Your task to perform on an android device: all mails in gmail Image 0: 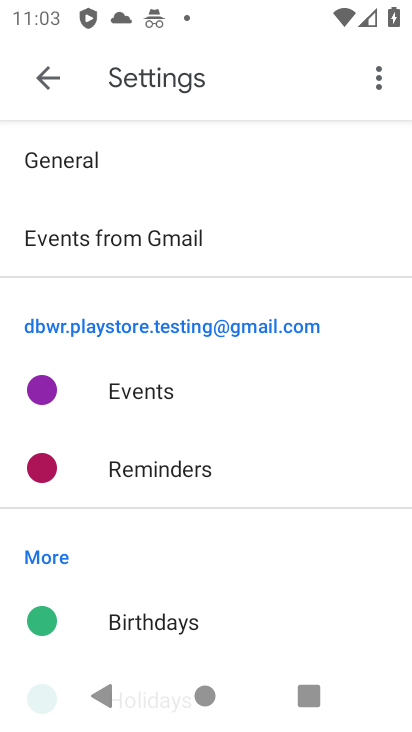
Step 0: press home button
Your task to perform on an android device: all mails in gmail Image 1: 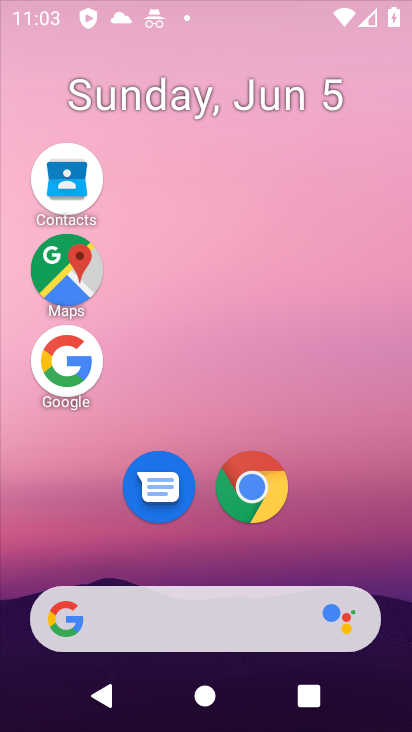
Step 1: drag from (201, 662) to (233, 117)
Your task to perform on an android device: all mails in gmail Image 2: 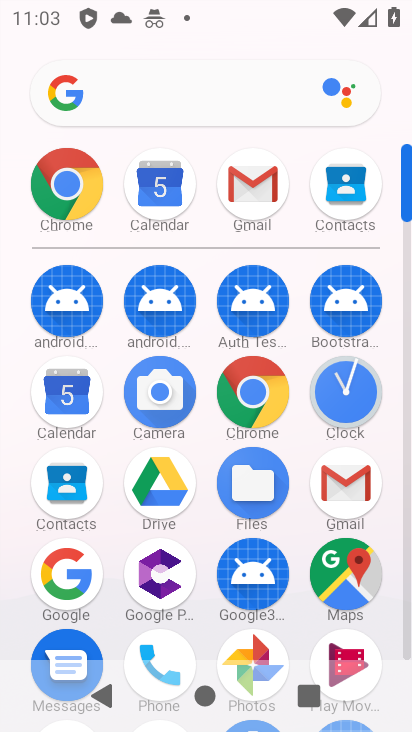
Step 2: click (249, 195)
Your task to perform on an android device: all mails in gmail Image 3: 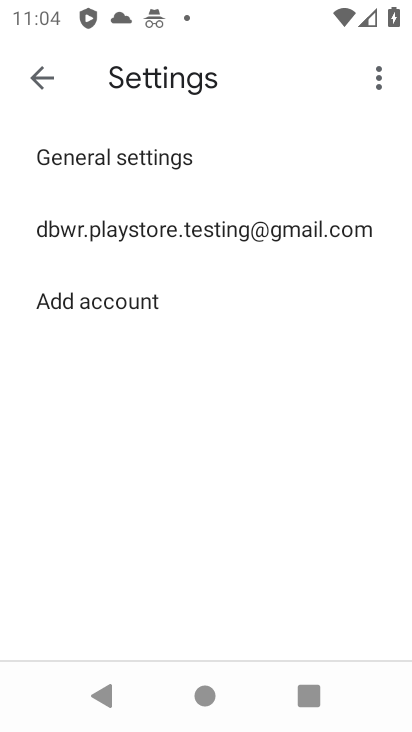
Step 3: click (31, 76)
Your task to perform on an android device: all mails in gmail Image 4: 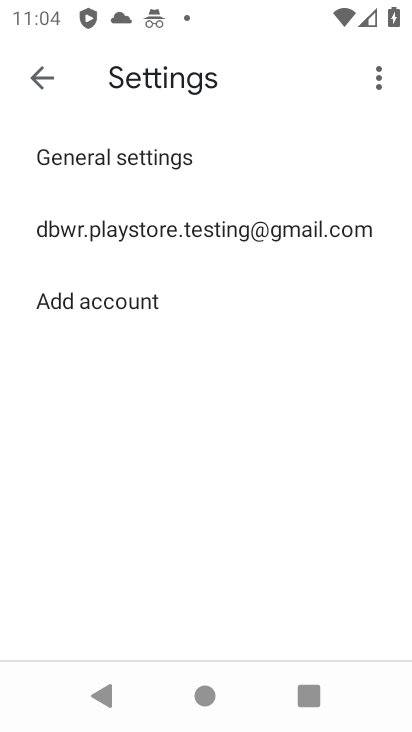
Step 4: click (33, 84)
Your task to perform on an android device: all mails in gmail Image 5: 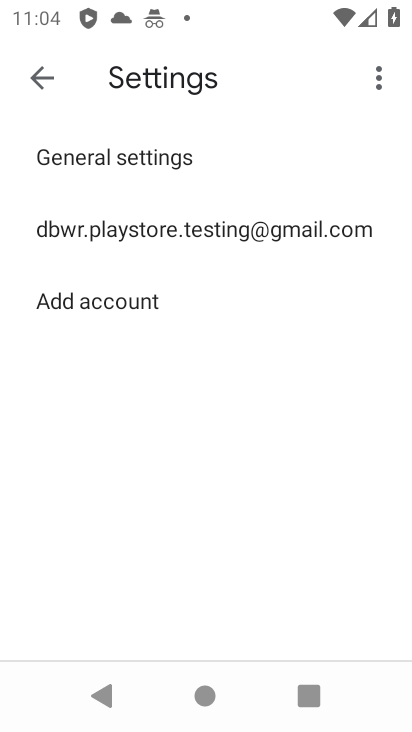
Step 5: click (49, 77)
Your task to perform on an android device: all mails in gmail Image 6: 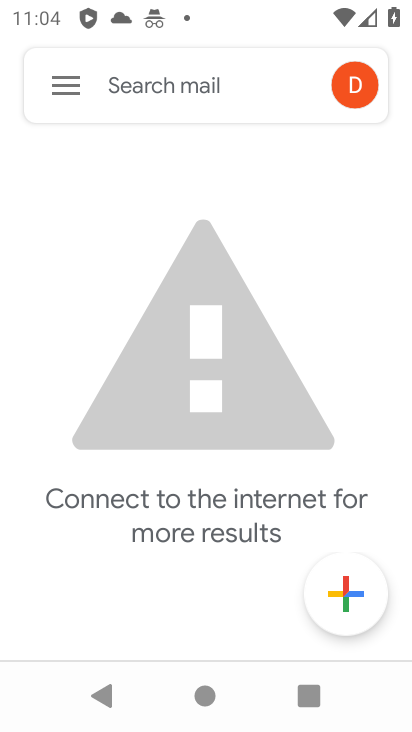
Step 6: click (66, 74)
Your task to perform on an android device: all mails in gmail Image 7: 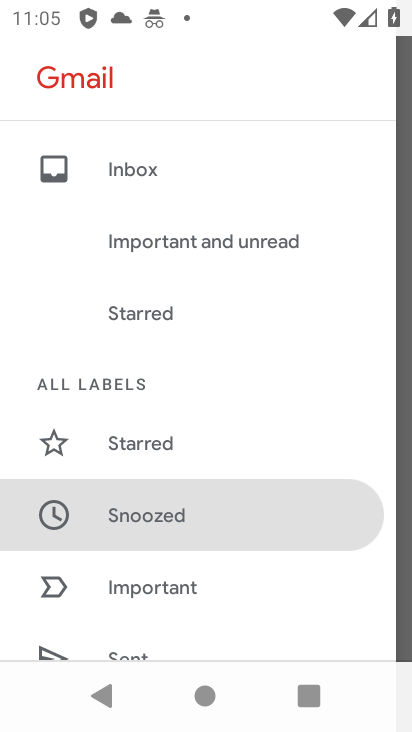
Step 7: drag from (208, 599) to (224, 76)
Your task to perform on an android device: all mails in gmail Image 8: 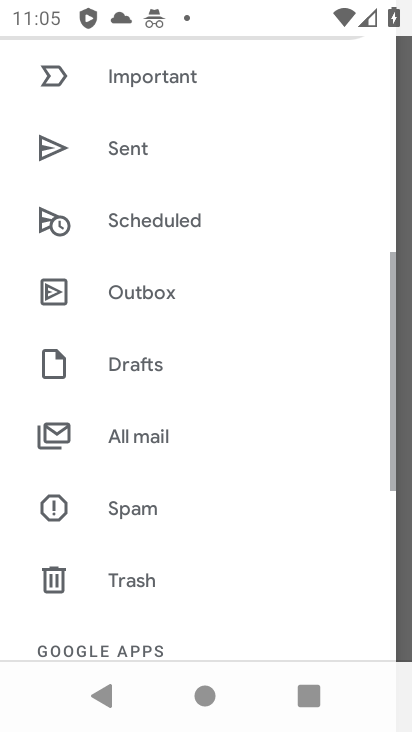
Step 8: click (162, 439)
Your task to perform on an android device: all mails in gmail Image 9: 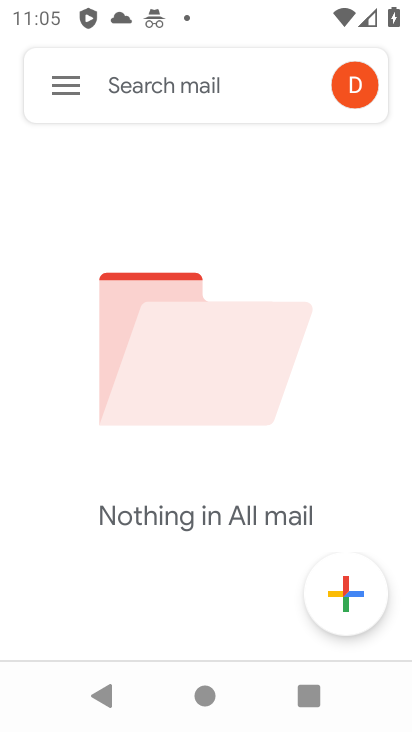
Step 9: task complete